Your task to perform on an android device: make emails show in primary in the gmail app Image 0: 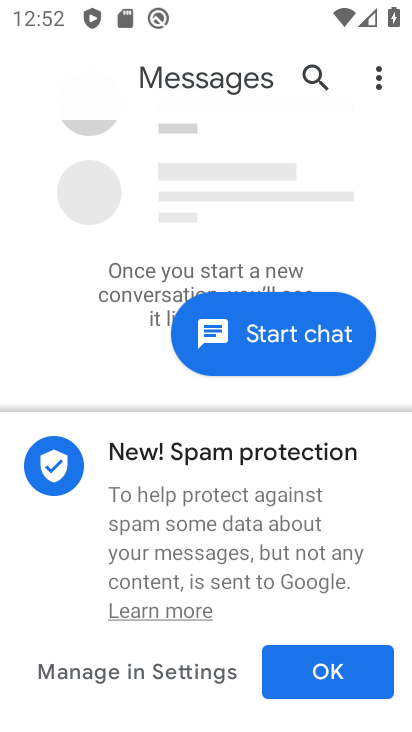
Step 0: press home button
Your task to perform on an android device: make emails show in primary in the gmail app Image 1: 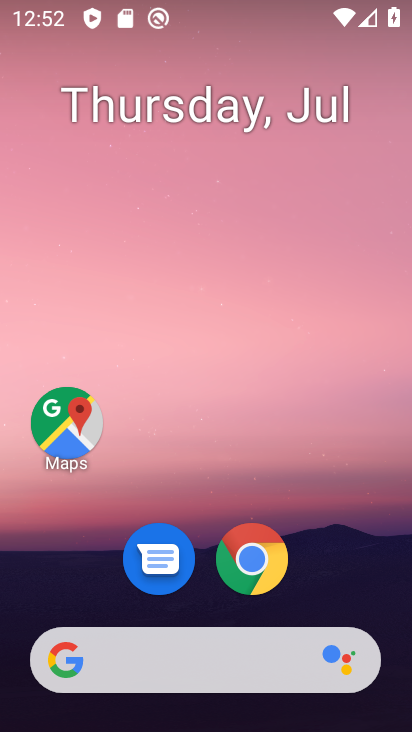
Step 1: drag from (385, 602) to (330, 141)
Your task to perform on an android device: make emails show in primary in the gmail app Image 2: 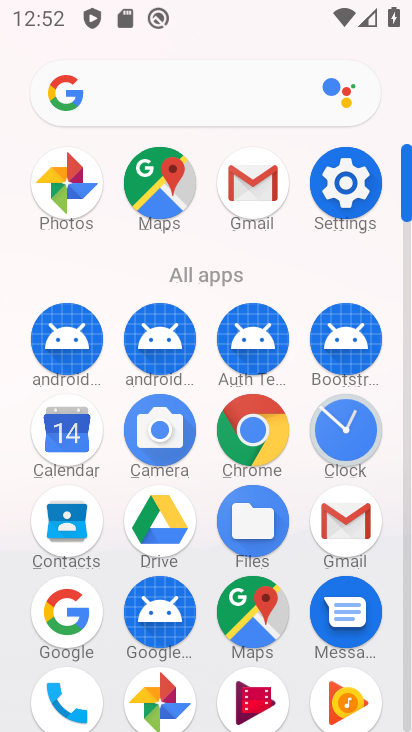
Step 2: click (255, 199)
Your task to perform on an android device: make emails show in primary in the gmail app Image 3: 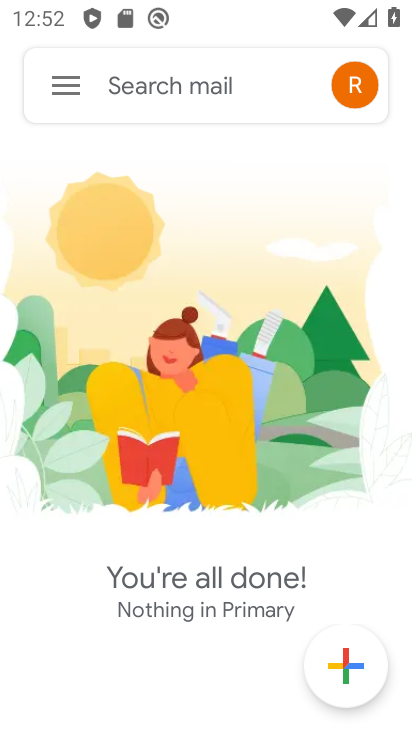
Step 3: click (64, 92)
Your task to perform on an android device: make emails show in primary in the gmail app Image 4: 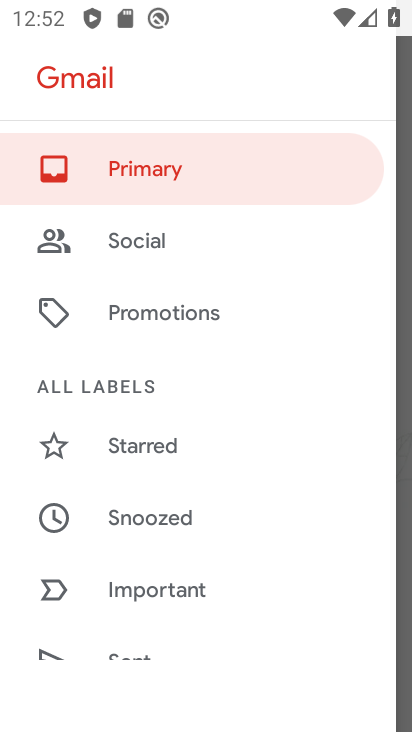
Step 4: drag from (209, 626) to (165, 157)
Your task to perform on an android device: make emails show in primary in the gmail app Image 5: 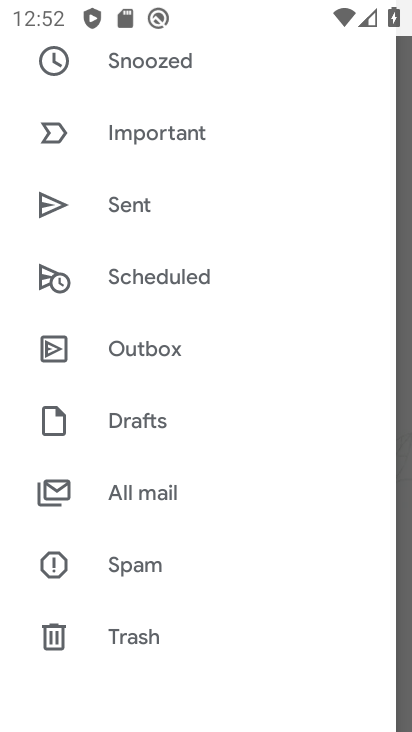
Step 5: drag from (172, 671) to (217, 311)
Your task to perform on an android device: make emails show in primary in the gmail app Image 6: 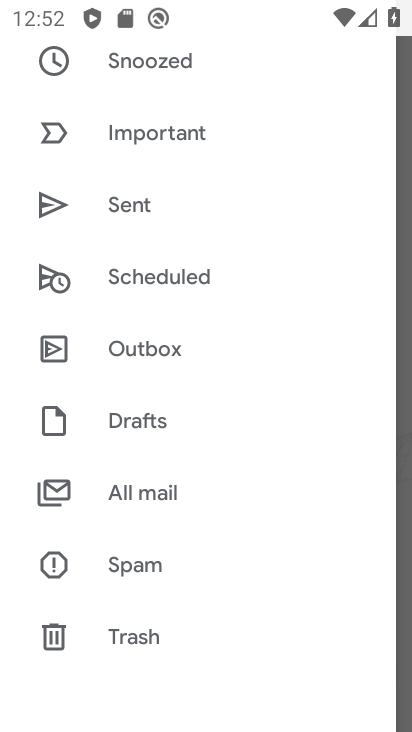
Step 6: drag from (227, 585) to (231, 186)
Your task to perform on an android device: make emails show in primary in the gmail app Image 7: 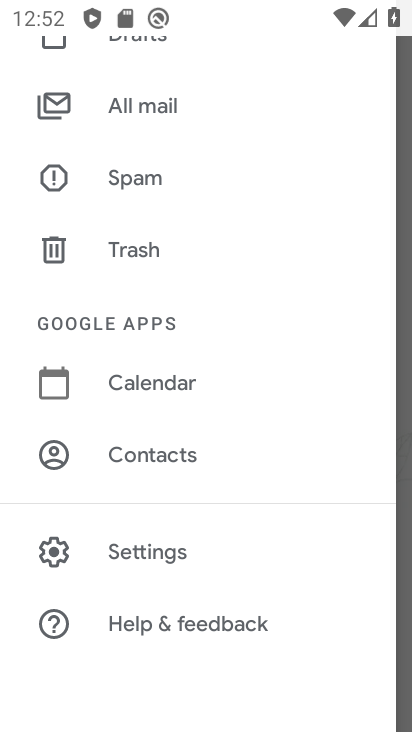
Step 7: click (205, 557)
Your task to perform on an android device: make emails show in primary in the gmail app Image 8: 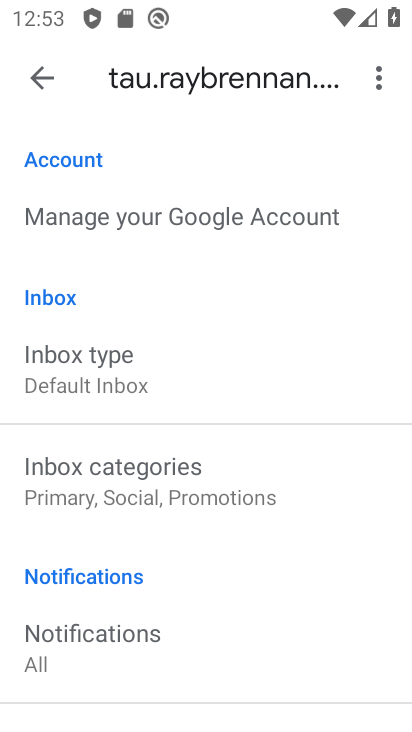
Step 8: click (191, 383)
Your task to perform on an android device: make emails show in primary in the gmail app Image 9: 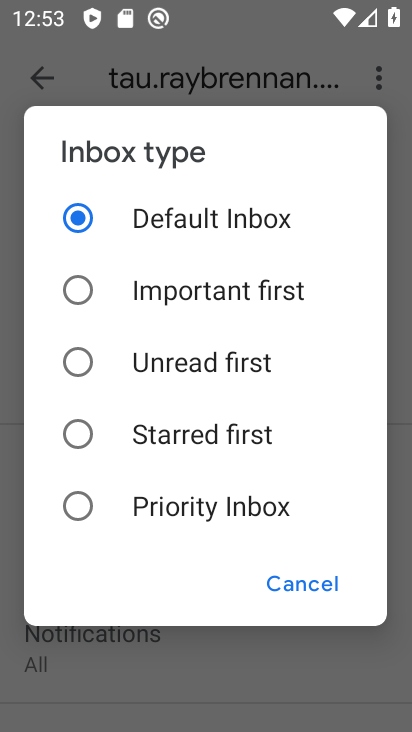
Step 9: task complete